Your task to perform on an android device: toggle notifications settings in the gmail app Image 0: 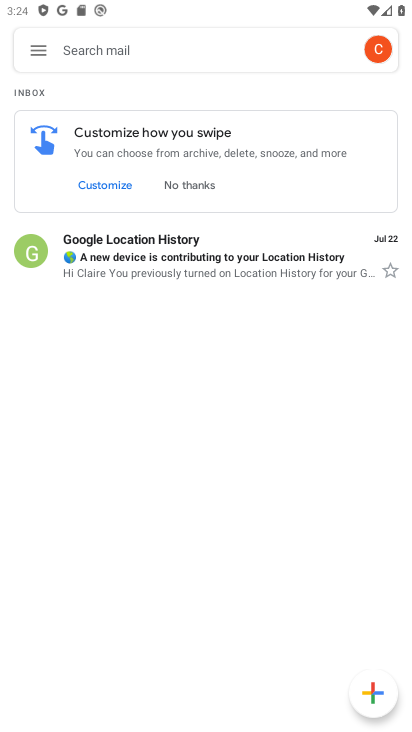
Step 0: press home button
Your task to perform on an android device: toggle notifications settings in the gmail app Image 1: 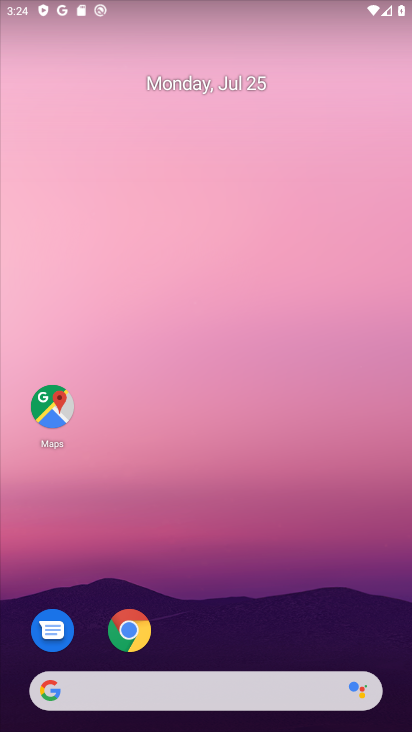
Step 1: drag from (194, 695) to (223, 62)
Your task to perform on an android device: toggle notifications settings in the gmail app Image 2: 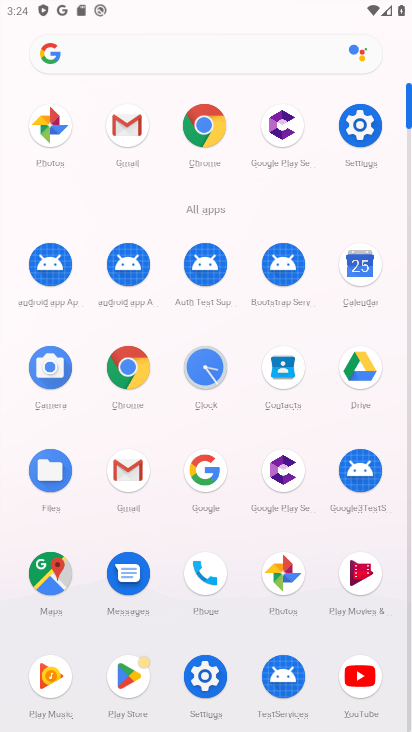
Step 2: click (126, 122)
Your task to perform on an android device: toggle notifications settings in the gmail app Image 3: 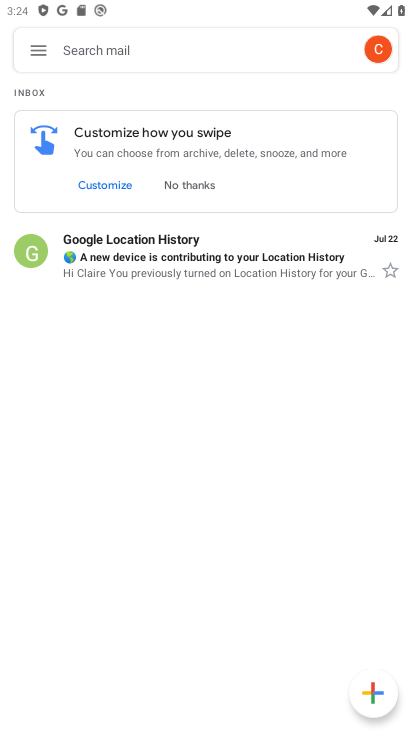
Step 3: click (40, 54)
Your task to perform on an android device: toggle notifications settings in the gmail app Image 4: 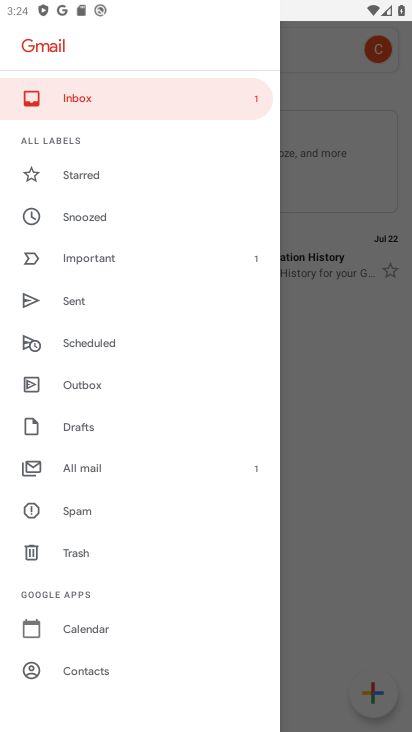
Step 4: drag from (90, 643) to (110, 522)
Your task to perform on an android device: toggle notifications settings in the gmail app Image 5: 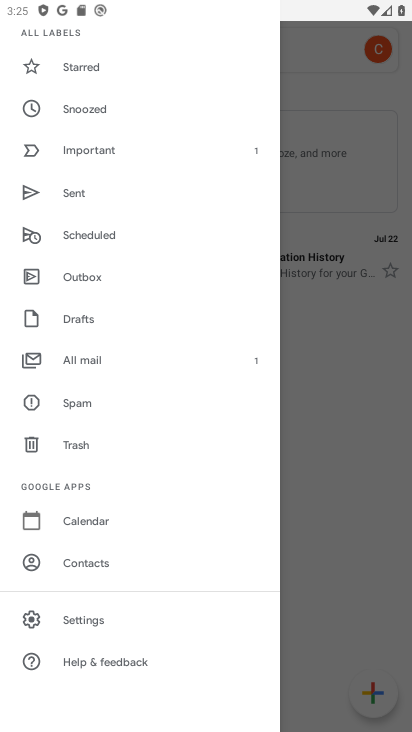
Step 5: click (75, 615)
Your task to perform on an android device: toggle notifications settings in the gmail app Image 6: 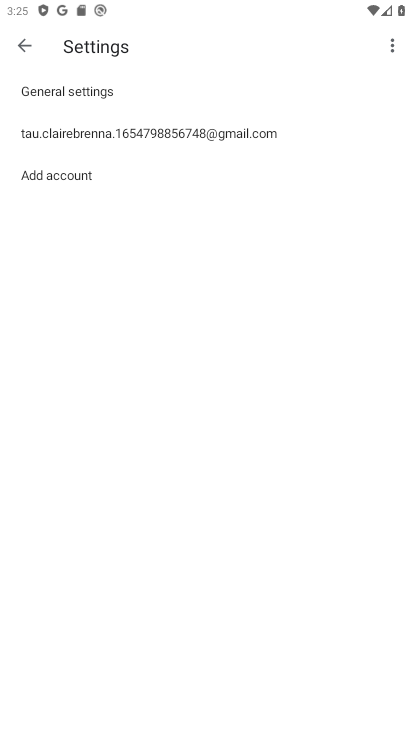
Step 6: click (184, 135)
Your task to perform on an android device: toggle notifications settings in the gmail app Image 7: 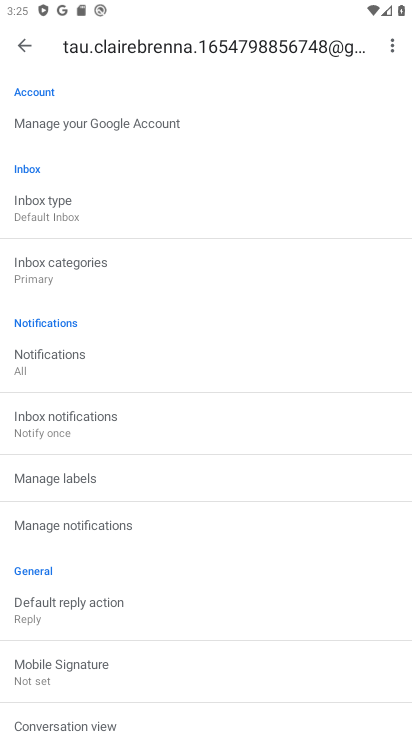
Step 7: click (114, 530)
Your task to perform on an android device: toggle notifications settings in the gmail app Image 8: 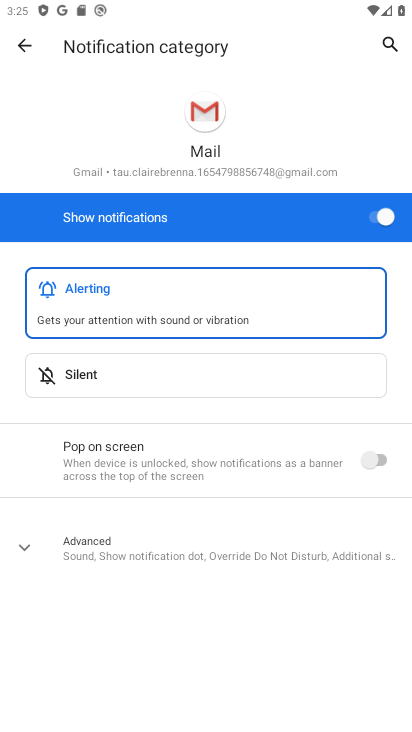
Step 8: click (378, 223)
Your task to perform on an android device: toggle notifications settings in the gmail app Image 9: 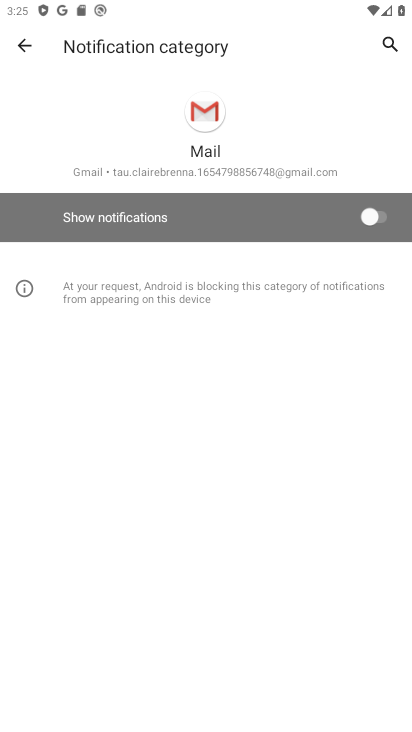
Step 9: task complete